Your task to perform on an android device: move a message to another label in the gmail app Image 0: 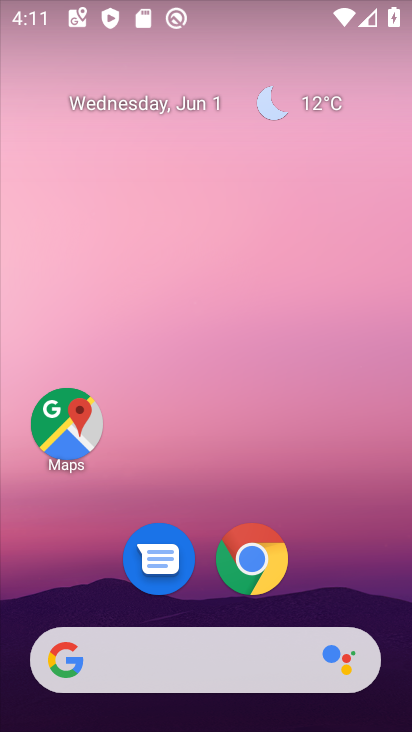
Step 0: drag from (343, 596) to (359, 10)
Your task to perform on an android device: move a message to another label in the gmail app Image 1: 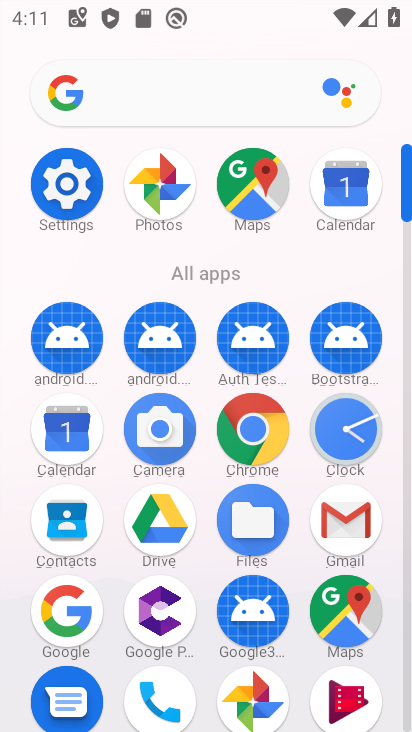
Step 1: click (349, 515)
Your task to perform on an android device: move a message to another label in the gmail app Image 2: 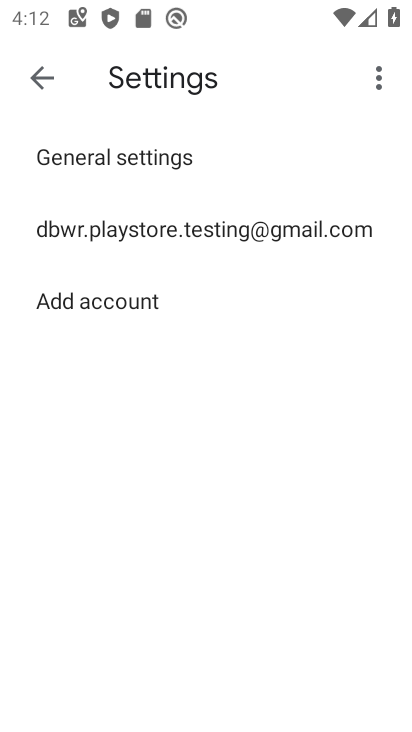
Step 2: click (35, 75)
Your task to perform on an android device: move a message to another label in the gmail app Image 3: 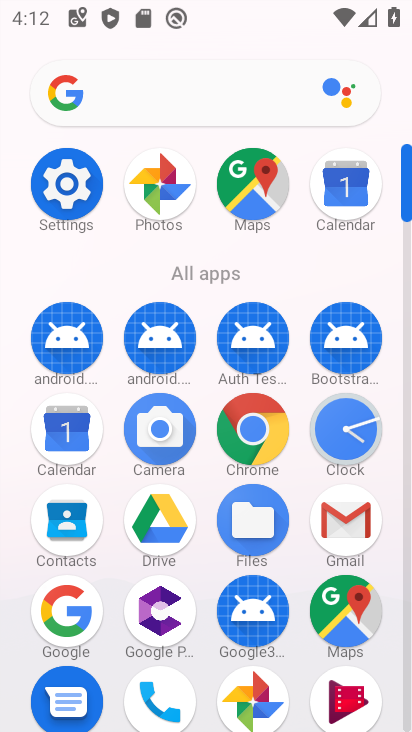
Step 3: click (353, 528)
Your task to perform on an android device: move a message to another label in the gmail app Image 4: 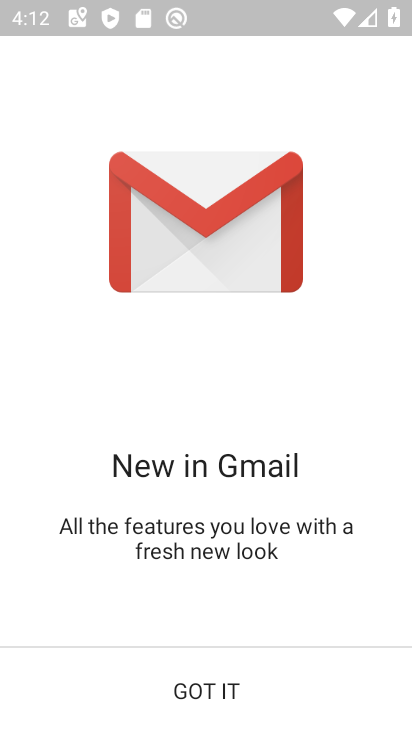
Step 4: click (145, 689)
Your task to perform on an android device: move a message to another label in the gmail app Image 5: 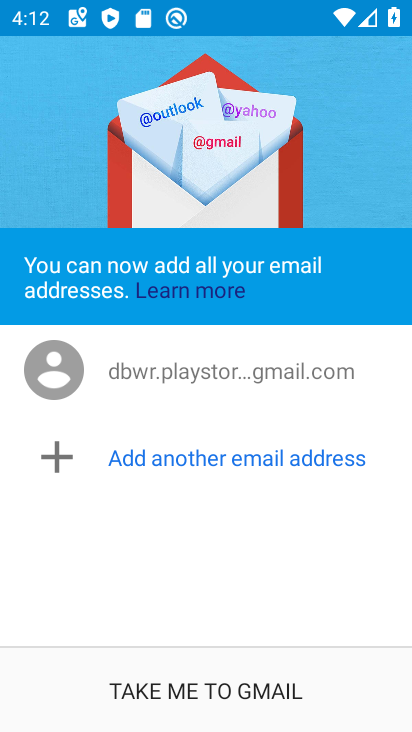
Step 5: click (143, 674)
Your task to perform on an android device: move a message to another label in the gmail app Image 6: 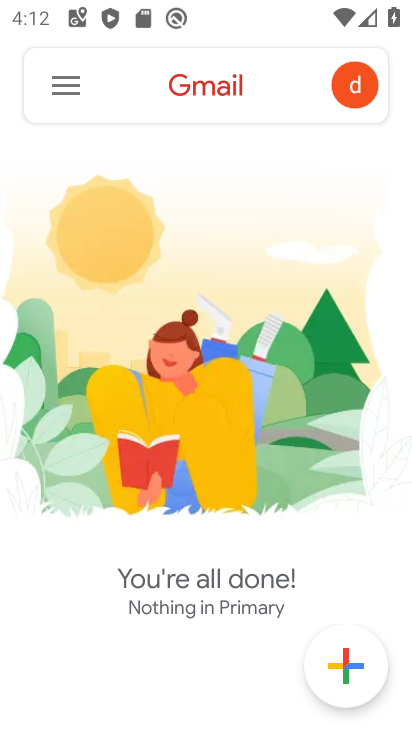
Step 6: click (66, 78)
Your task to perform on an android device: move a message to another label in the gmail app Image 7: 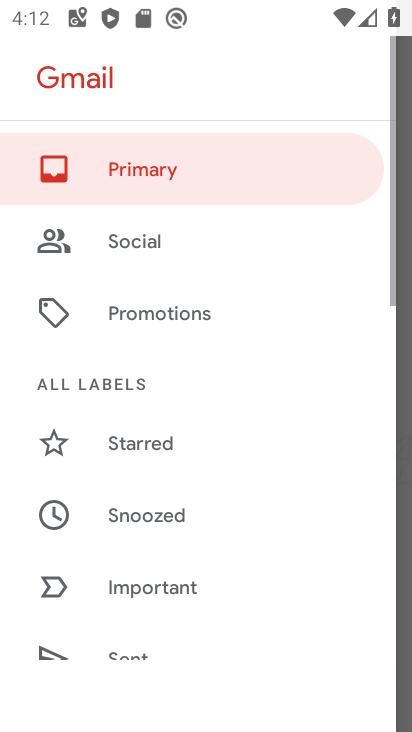
Step 7: drag from (145, 637) to (188, 208)
Your task to perform on an android device: move a message to another label in the gmail app Image 8: 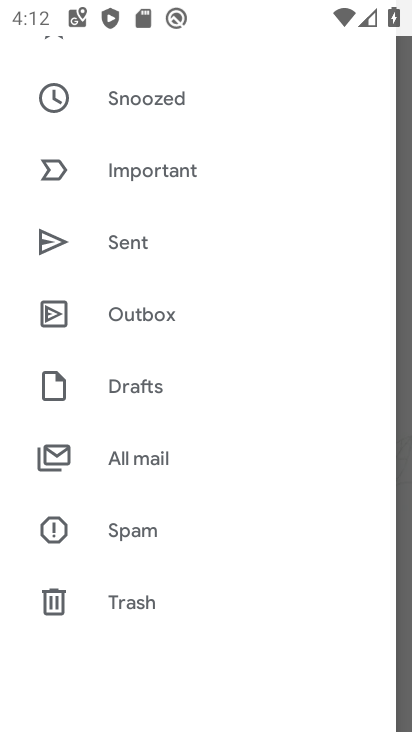
Step 8: click (149, 469)
Your task to perform on an android device: move a message to another label in the gmail app Image 9: 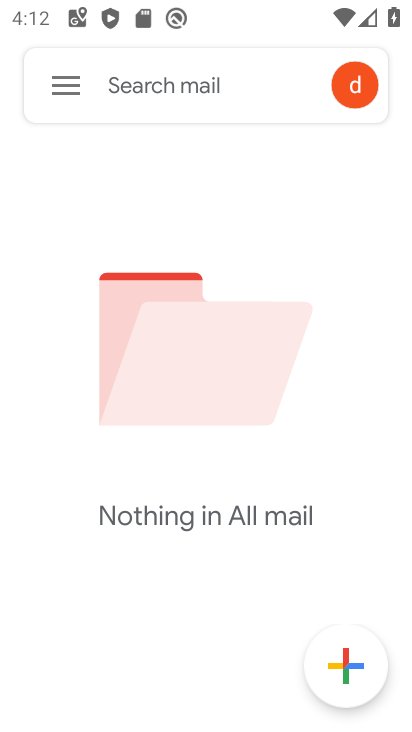
Step 9: task complete